Your task to perform on an android device: open wifi settings Image 0: 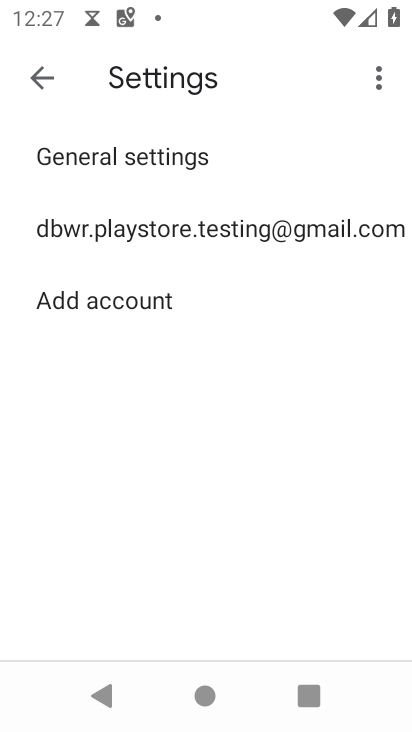
Step 0: press home button
Your task to perform on an android device: open wifi settings Image 1: 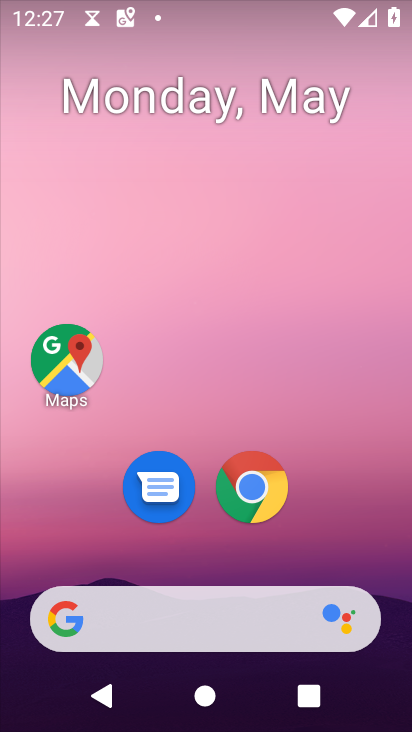
Step 1: drag from (222, 565) to (193, 26)
Your task to perform on an android device: open wifi settings Image 2: 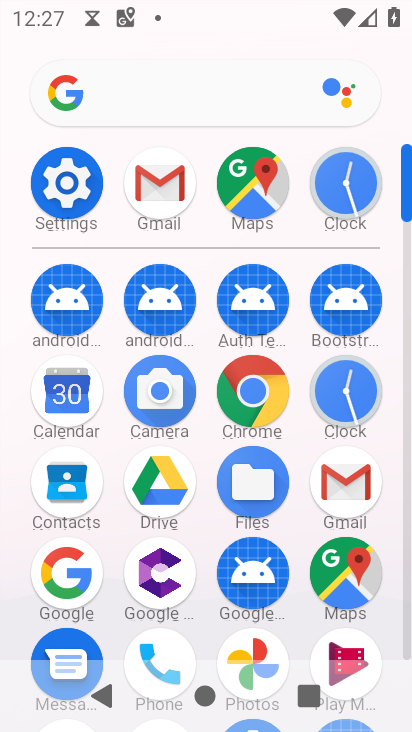
Step 2: click (74, 179)
Your task to perform on an android device: open wifi settings Image 3: 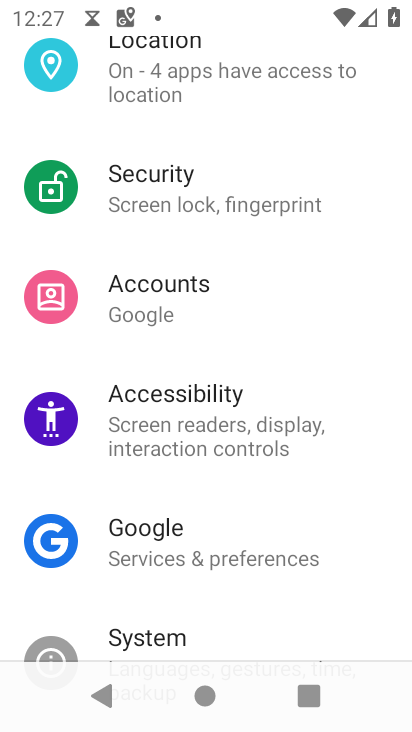
Step 3: drag from (223, 221) to (240, 625)
Your task to perform on an android device: open wifi settings Image 4: 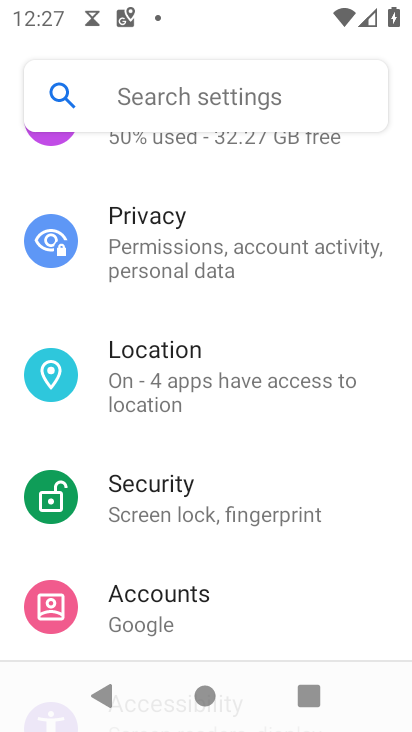
Step 4: drag from (264, 336) to (285, 703)
Your task to perform on an android device: open wifi settings Image 5: 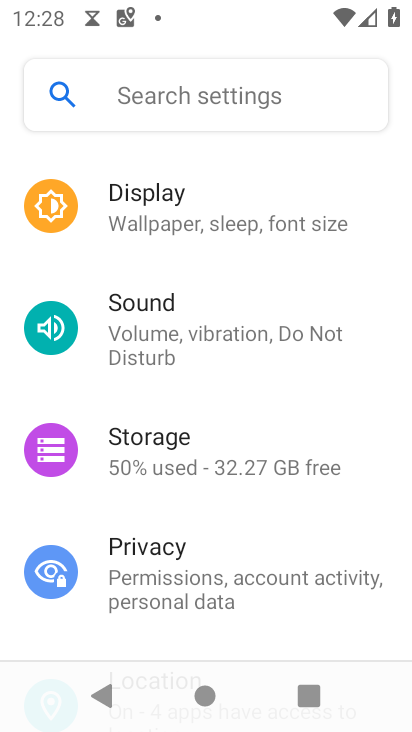
Step 5: drag from (248, 309) to (327, 575)
Your task to perform on an android device: open wifi settings Image 6: 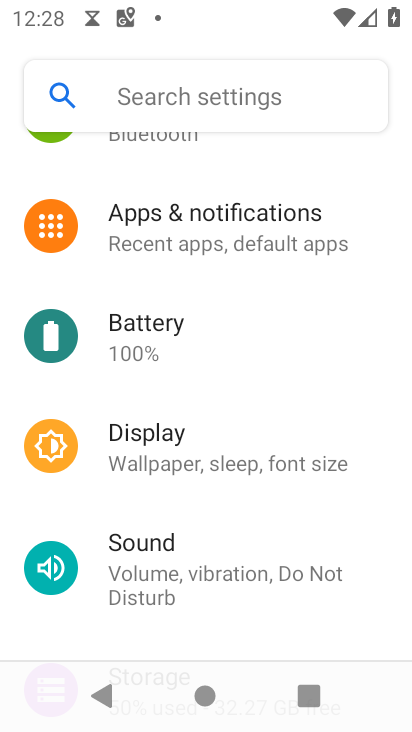
Step 6: drag from (248, 292) to (313, 667)
Your task to perform on an android device: open wifi settings Image 7: 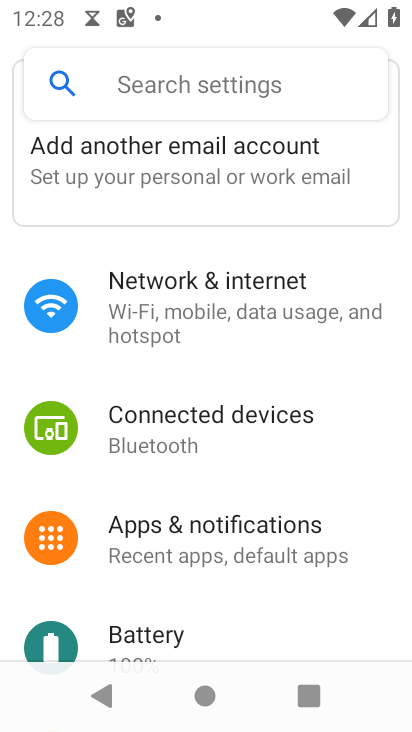
Step 7: click (238, 323)
Your task to perform on an android device: open wifi settings Image 8: 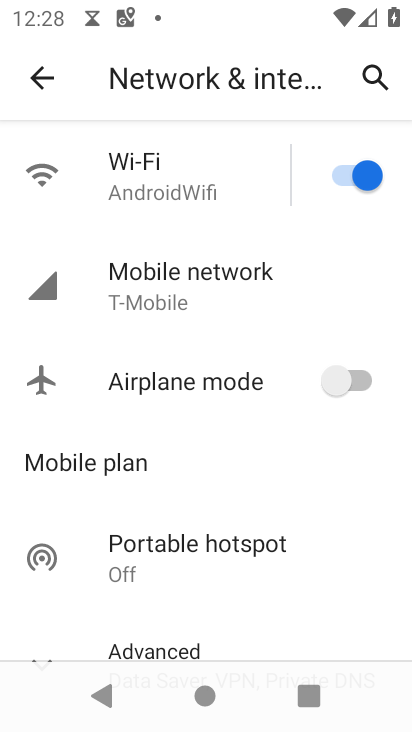
Step 8: click (79, 166)
Your task to perform on an android device: open wifi settings Image 9: 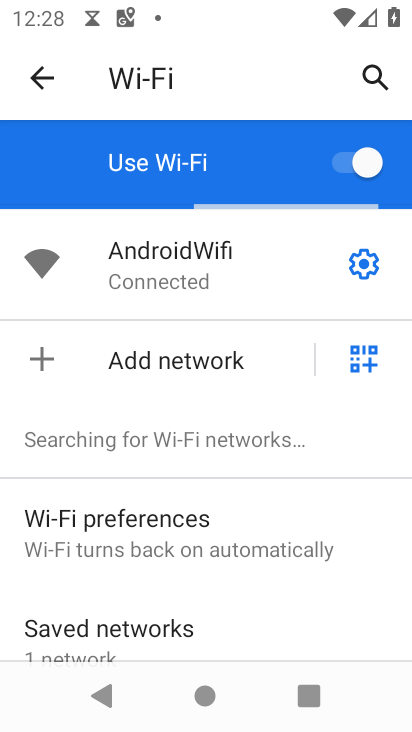
Step 9: task complete